Your task to perform on an android device: Search for logitech g910 on costco, select the first entry, add it to the cart, then select checkout. Image 0: 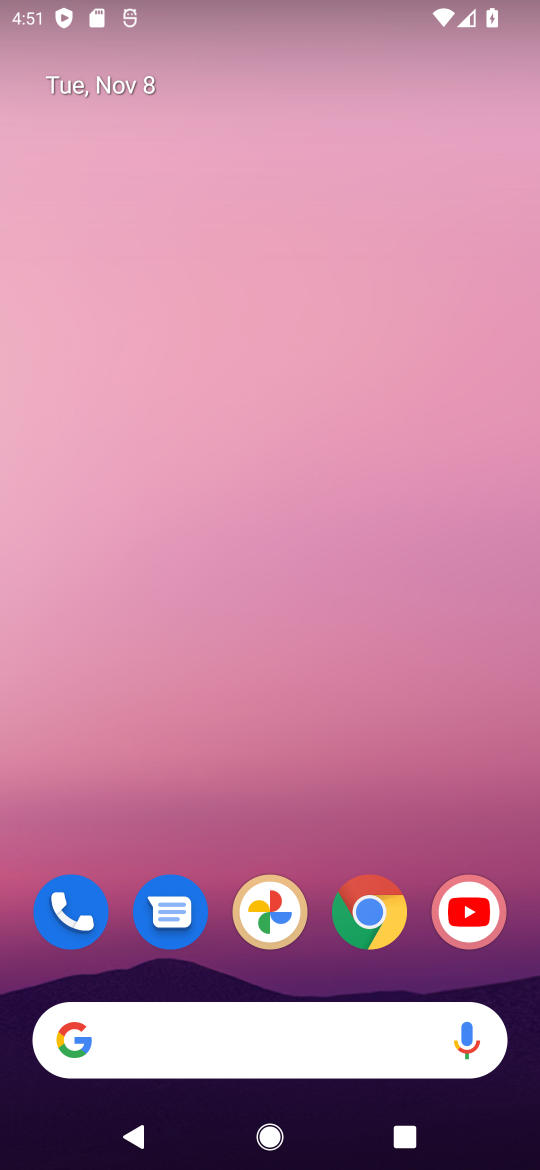
Step 0: click (378, 917)
Your task to perform on an android device: Search for logitech g910 on costco, select the first entry, add it to the cart, then select checkout. Image 1: 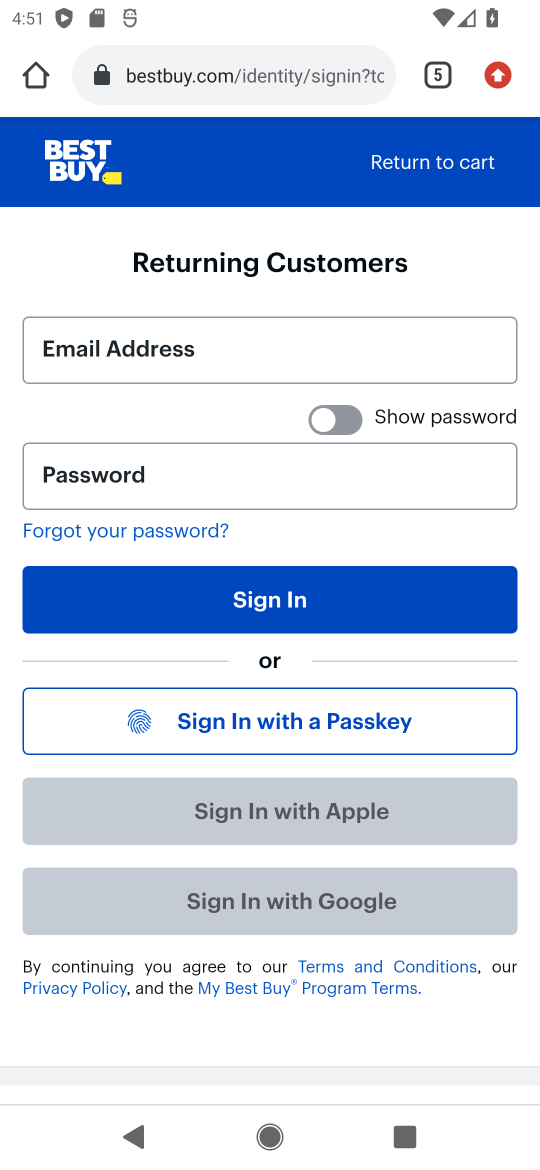
Step 1: click (447, 80)
Your task to perform on an android device: Search for logitech g910 on costco, select the first entry, add it to the cart, then select checkout. Image 2: 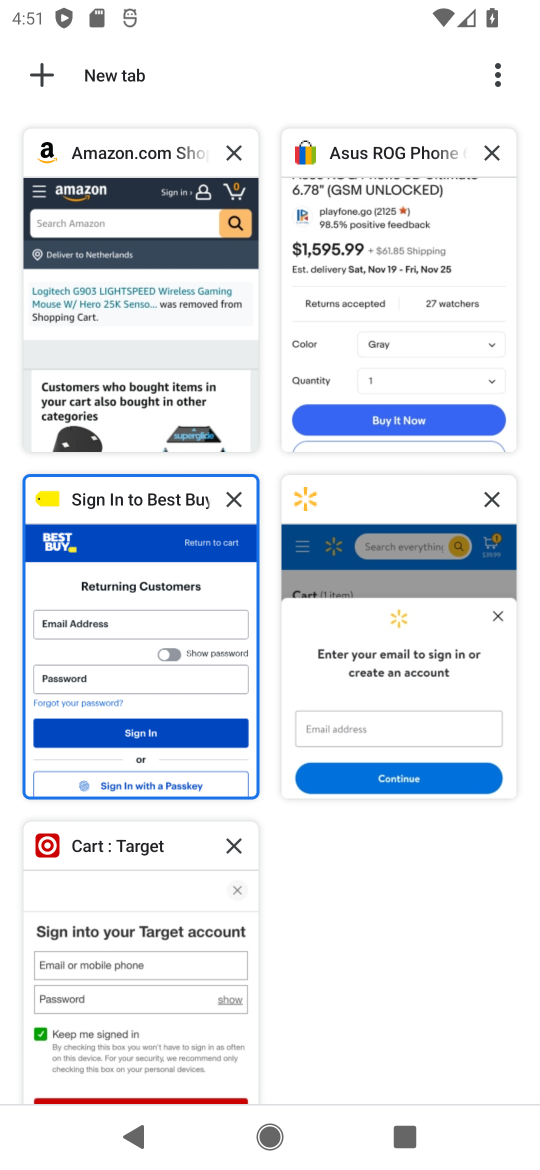
Step 2: click (44, 75)
Your task to perform on an android device: Search for logitech g910 on costco, select the first entry, add it to the cart, then select checkout. Image 3: 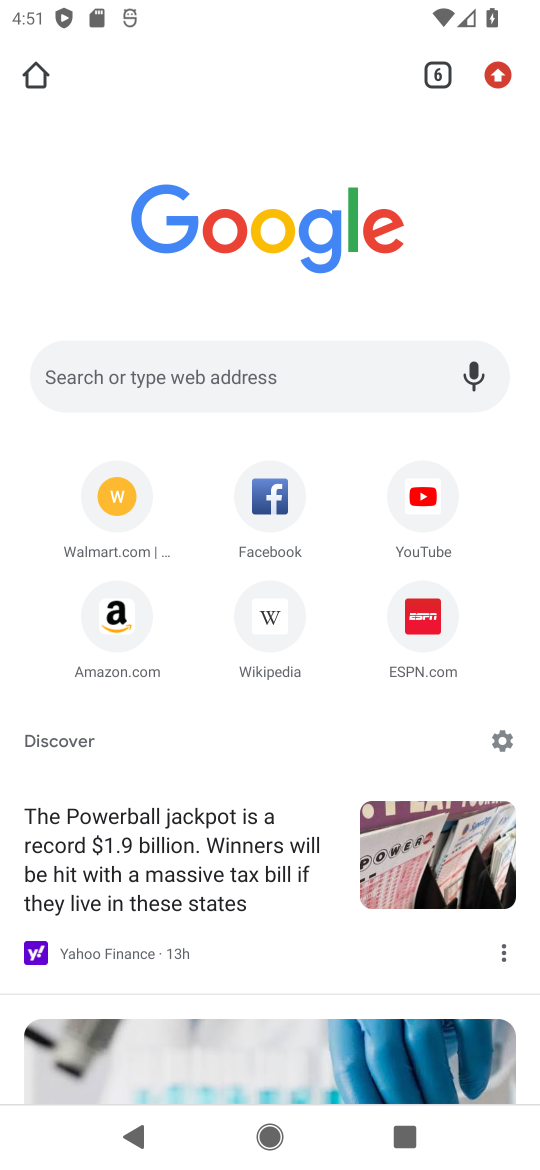
Step 3: click (71, 365)
Your task to perform on an android device: Search for logitech g910 on costco, select the first entry, add it to the cart, then select checkout. Image 4: 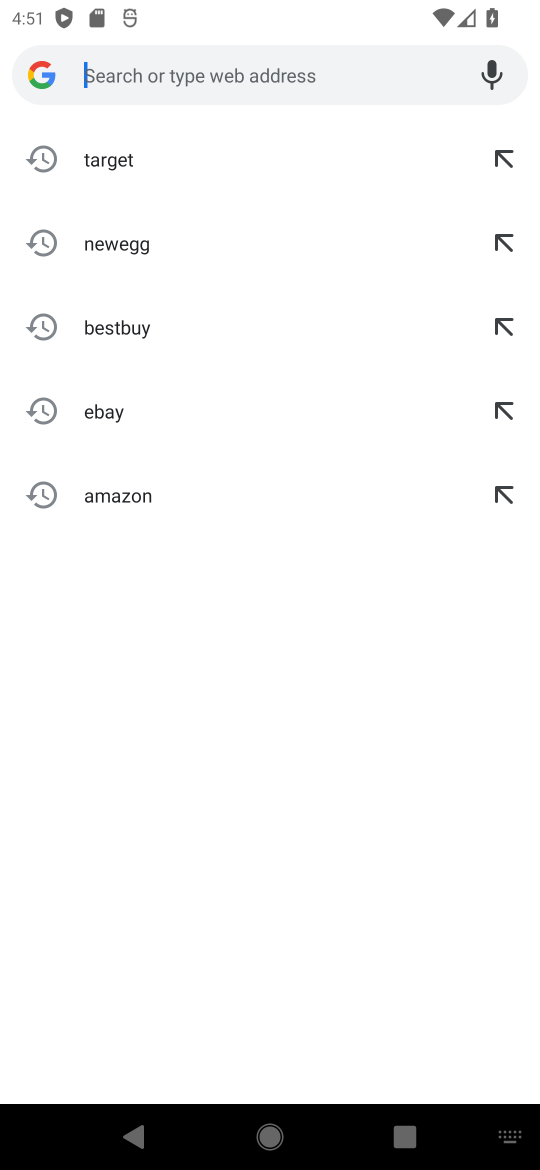
Step 4: type "costco"
Your task to perform on an android device: Search for logitech g910 on costco, select the first entry, add it to the cart, then select checkout. Image 5: 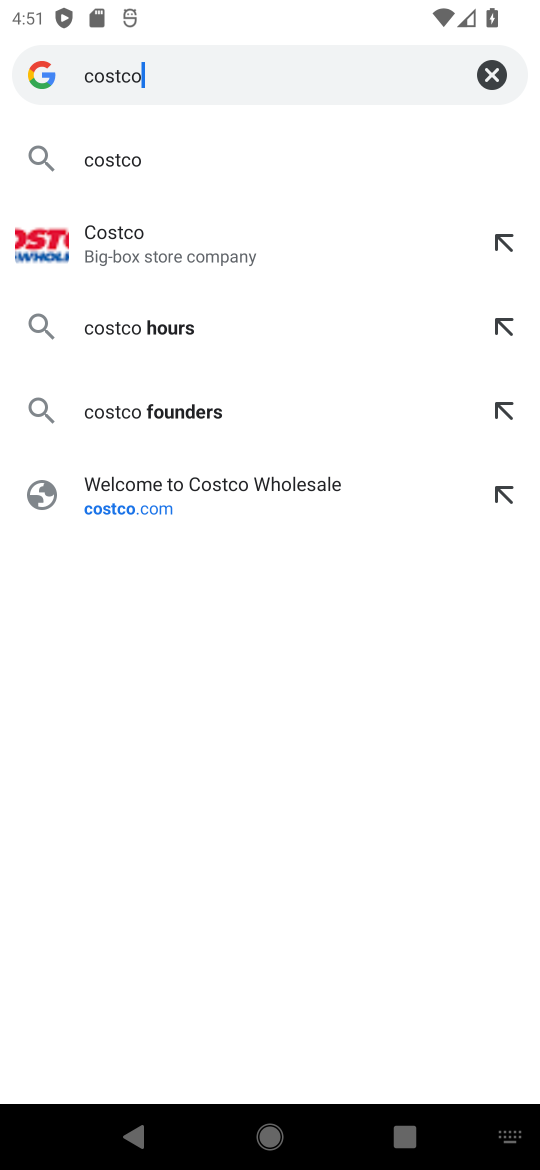
Step 5: click (96, 254)
Your task to perform on an android device: Search for logitech g910 on costco, select the first entry, add it to the cart, then select checkout. Image 6: 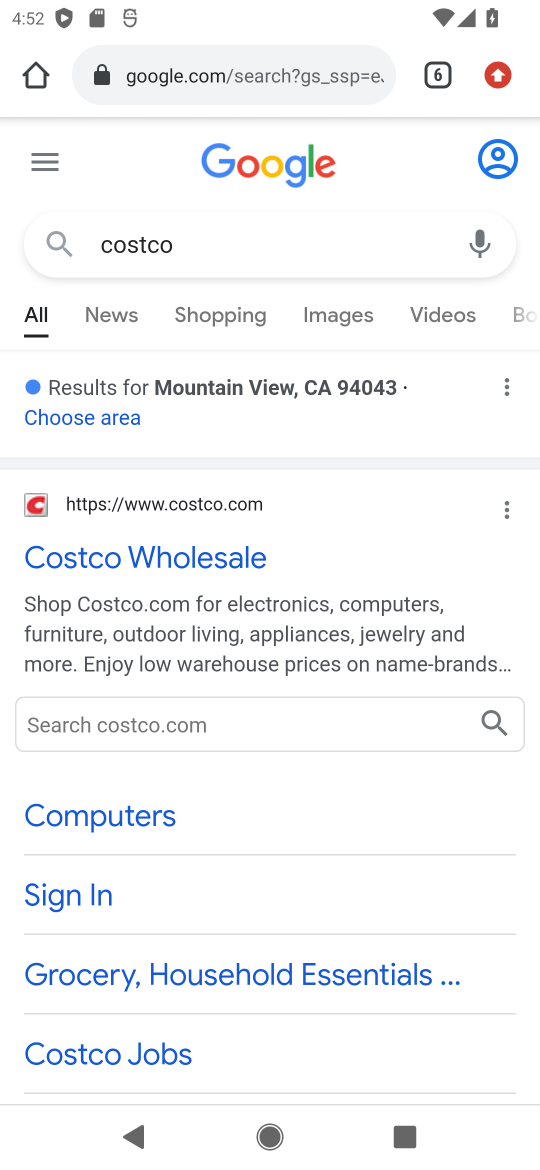
Step 6: click (51, 732)
Your task to perform on an android device: Search for logitech g910 on costco, select the first entry, add it to the cart, then select checkout. Image 7: 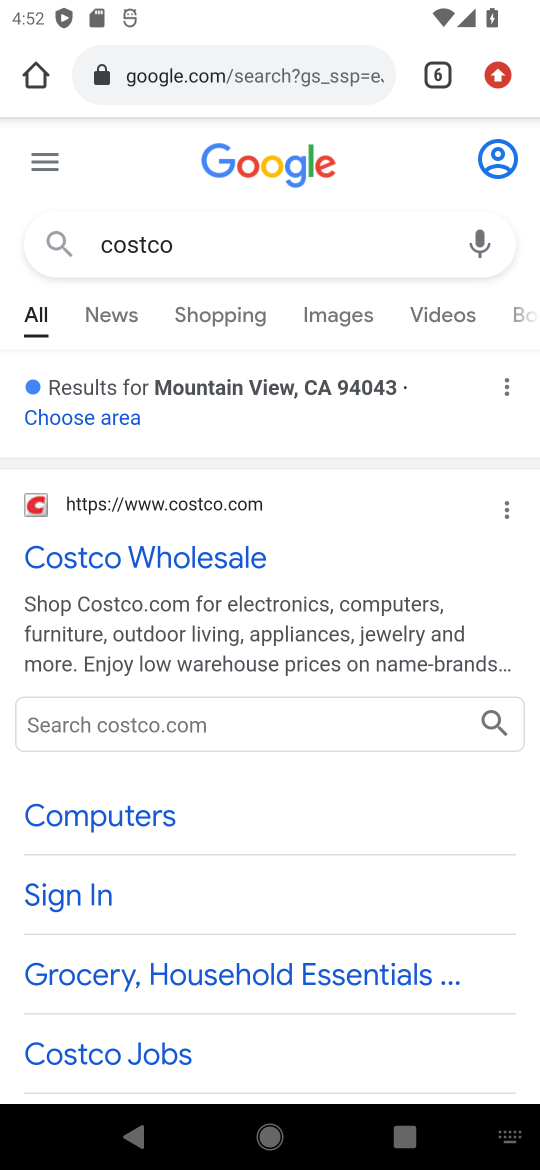
Step 7: type "logitech g910 "
Your task to perform on an android device: Search for logitech g910 on costco, select the first entry, add it to the cart, then select checkout. Image 8: 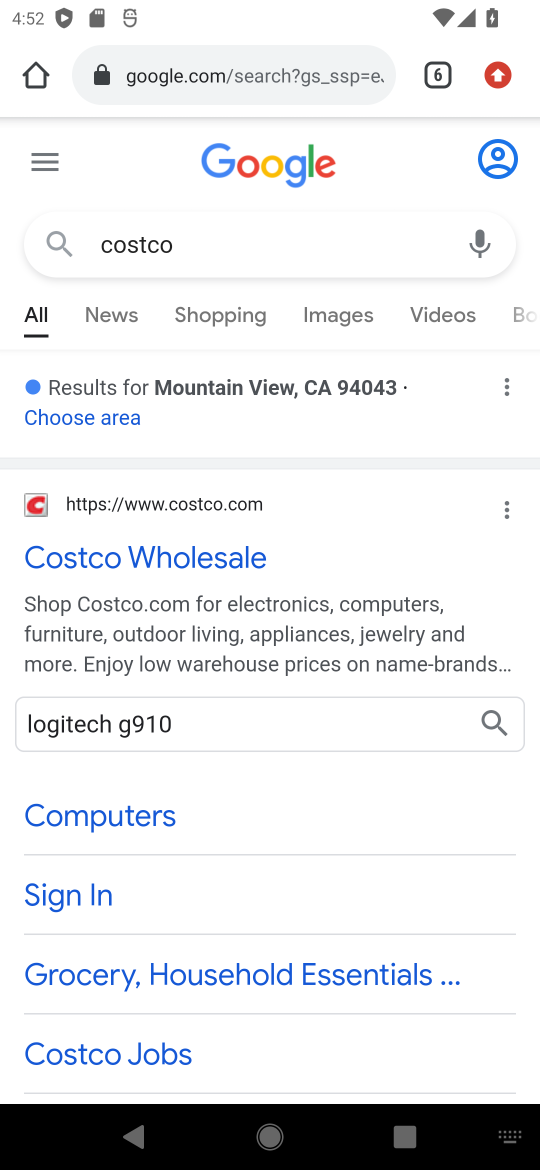
Step 8: click (496, 722)
Your task to perform on an android device: Search for logitech g910 on costco, select the first entry, add it to the cart, then select checkout. Image 9: 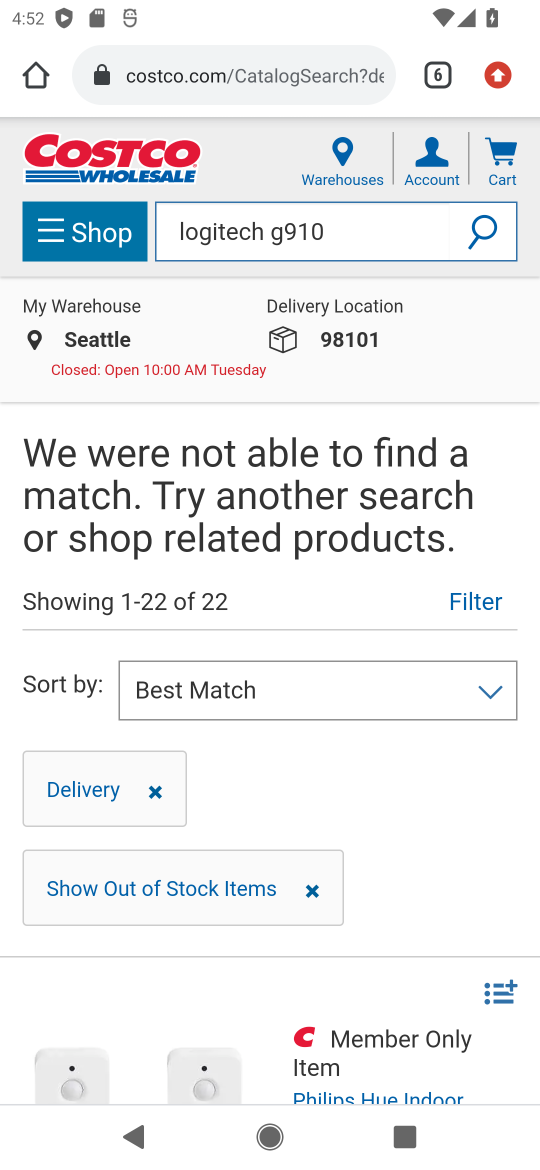
Step 9: drag from (396, 1054) to (432, 133)
Your task to perform on an android device: Search for logitech g910 on costco, select the first entry, add it to the cart, then select checkout. Image 10: 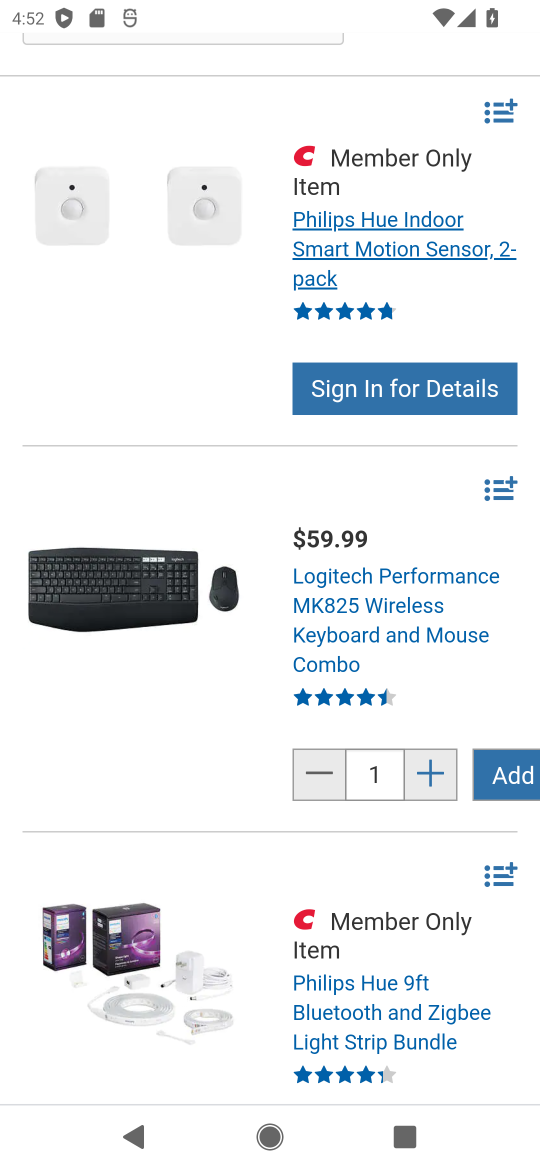
Step 10: click (503, 770)
Your task to perform on an android device: Search for logitech g910 on costco, select the first entry, add it to the cart, then select checkout. Image 11: 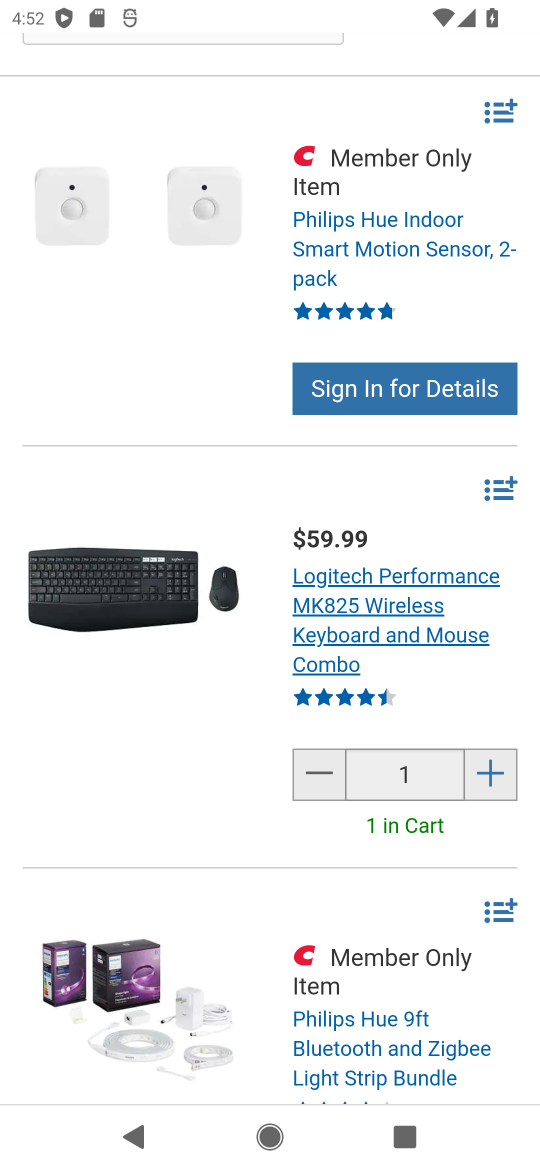
Step 11: drag from (431, 260) to (463, 1091)
Your task to perform on an android device: Search for logitech g910 on costco, select the first entry, add it to the cart, then select checkout. Image 12: 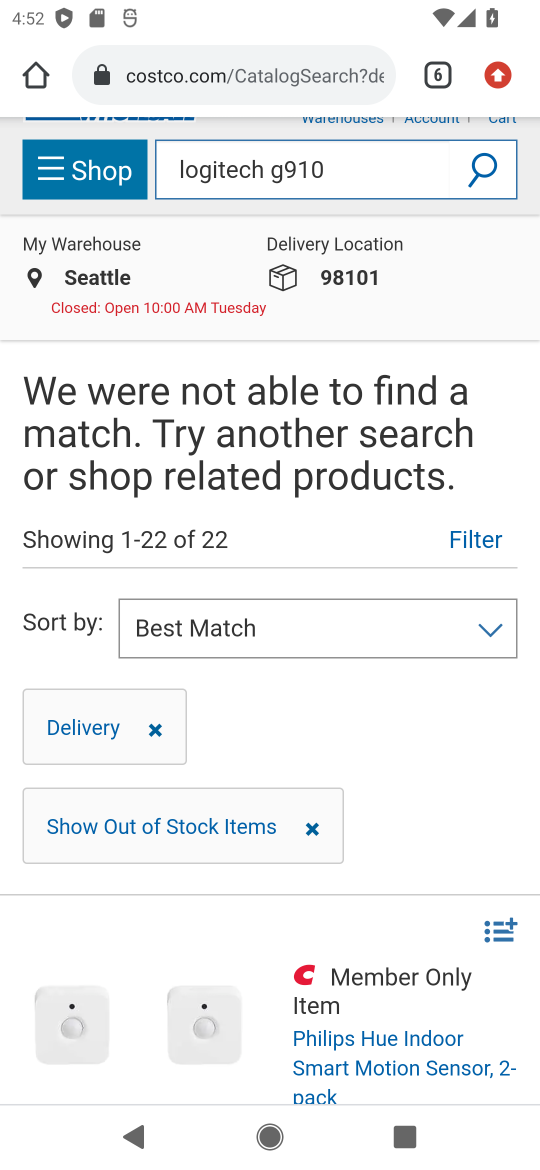
Step 12: drag from (474, 288) to (537, 958)
Your task to perform on an android device: Search for logitech g910 on costco, select the first entry, add it to the cart, then select checkout. Image 13: 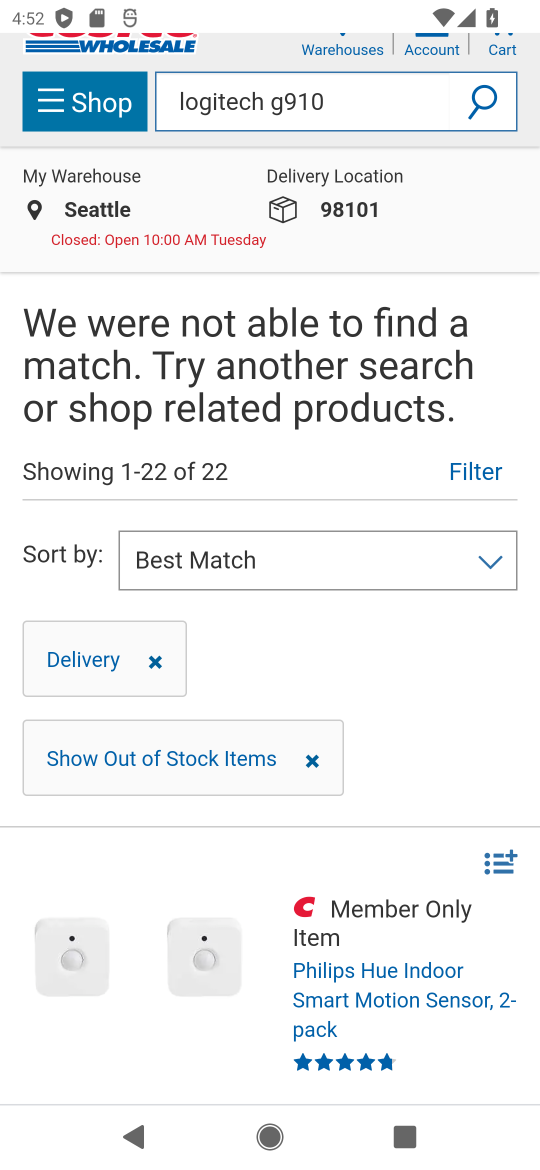
Step 13: click (512, 169)
Your task to perform on an android device: Search for logitech g910 on costco, select the first entry, add it to the cart, then select checkout. Image 14: 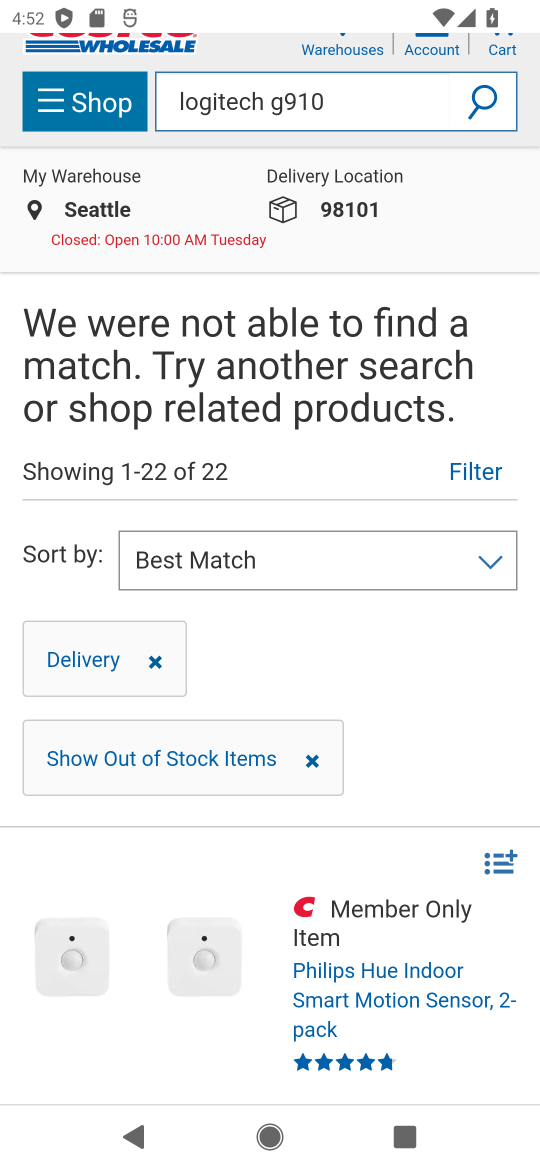
Step 14: click (499, 47)
Your task to perform on an android device: Search for logitech g910 on costco, select the first entry, add it to the cart, then select checkout. Image 15: 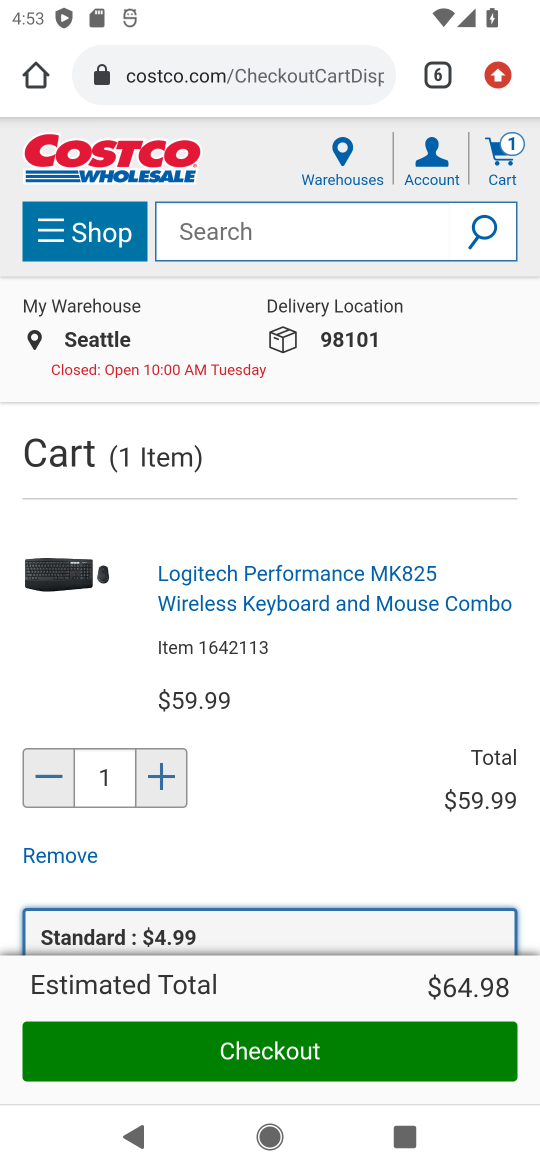
Step 15: click (375, 1058)
Your task to perform on an android device: Search for logitech g910 on costco, select the first entry, add it to the cart, then select checkout. Image 16: 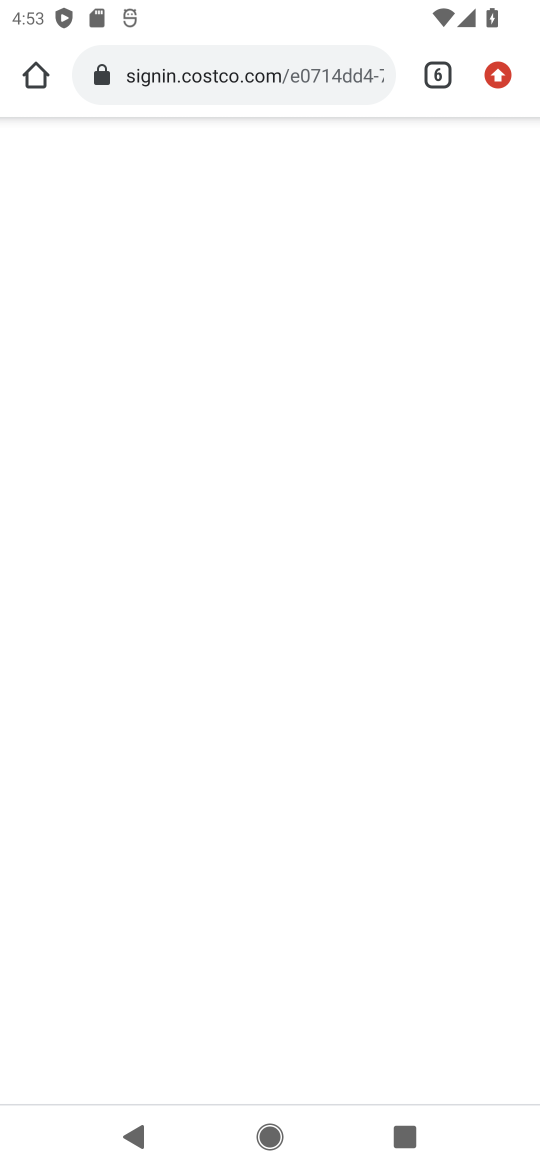
Step 16: task complete